Your task to perform on an android device: open sync settings in chrome Image 0: 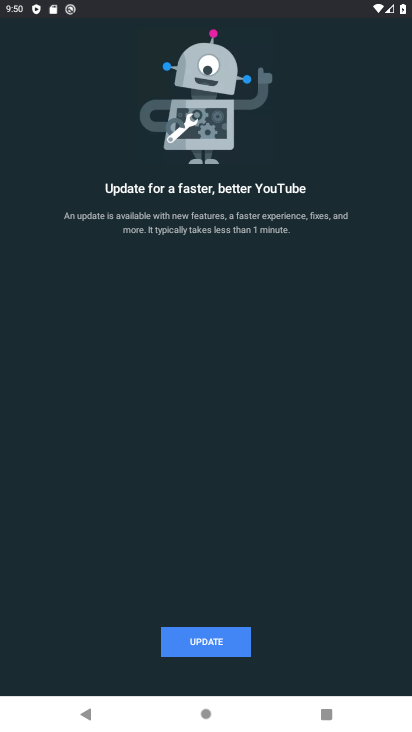
Step 0: press home button
Your task to perform on an android device: open sync settings in chrome Image 1: 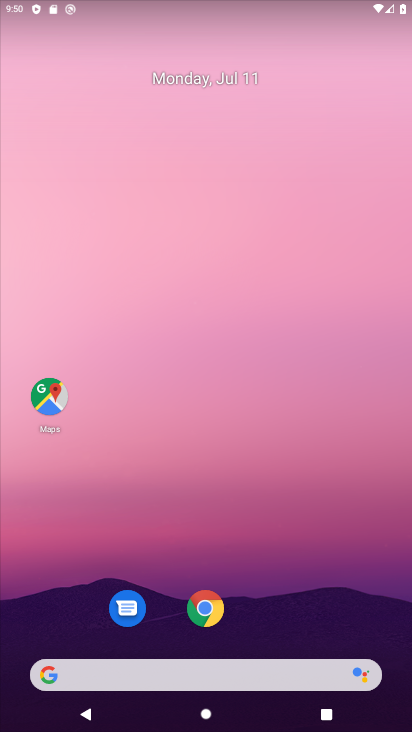
Step 1: drag from (46, 689) to (188, 109)
Your task to perform on an android device: open sync settings in chrome Image 2: 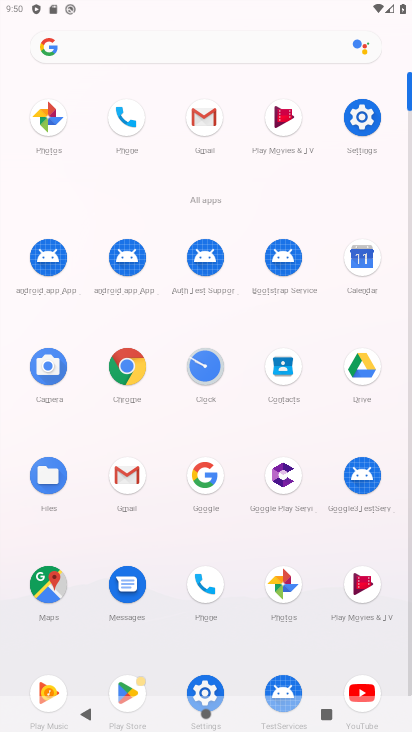
Step 2: click (121, 380)
Your task to perform on an android device: open sync settings in chrome Image 3: 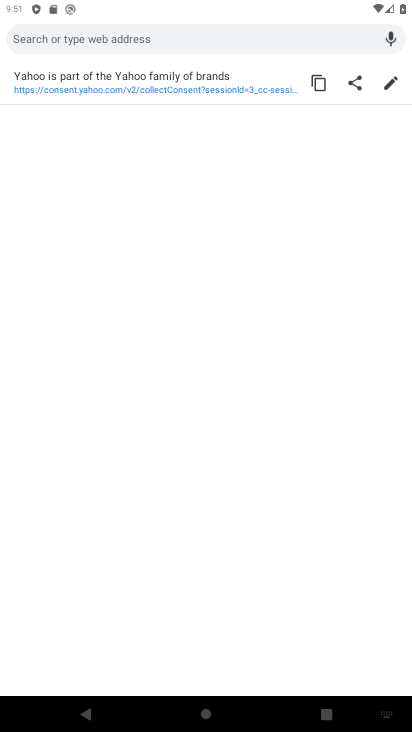
Step 3: click (151, 42)
Your task to perform on an android device: open sync settings in chrome Image 4: 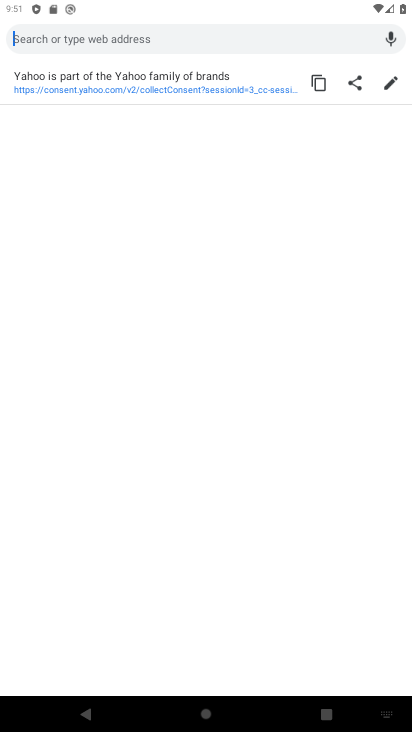
Step 4: click (148, 37)
Your task to perform on an android device: open sync settings in chrome Image 5: 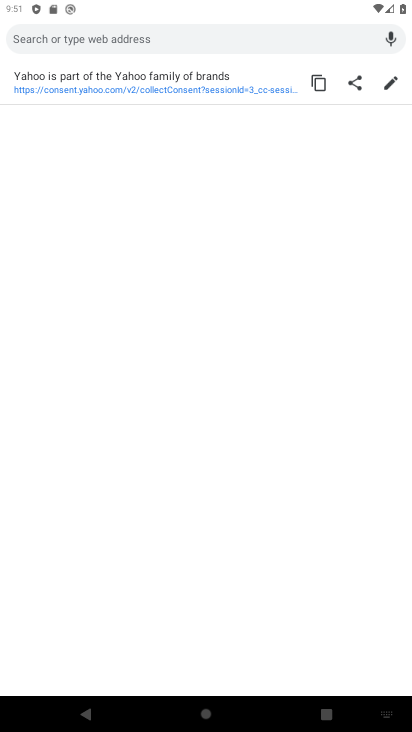
Step 5: task complete